Your task to perform on an android device: toggle translation in the chrome app Image 0: 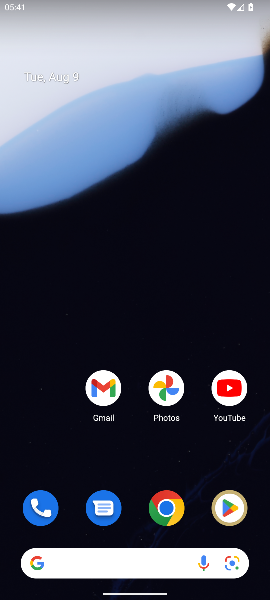
Step 0: click (174, 506)
Your task to perform on an android device: toggle translation in the chrome app Image 1: 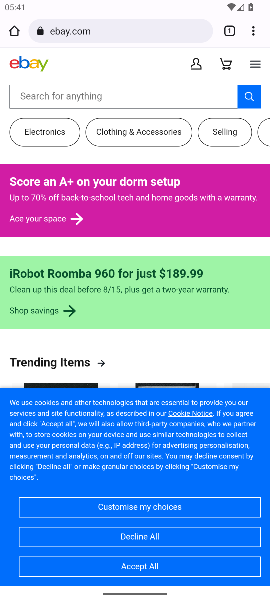
Step 1: click (254, 29)
Your task to perform on an android device: toggle translation in the chrome app Image 2: 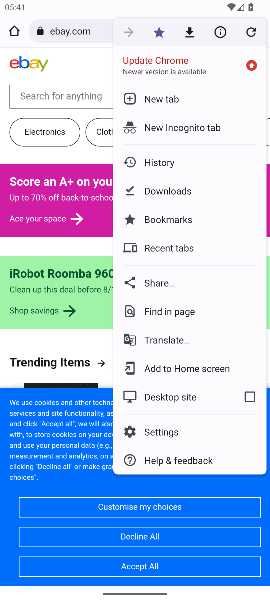
Step 2: click (169, 431)
Your task to perform on an android device: toggle translation in the chrome app Image 3: 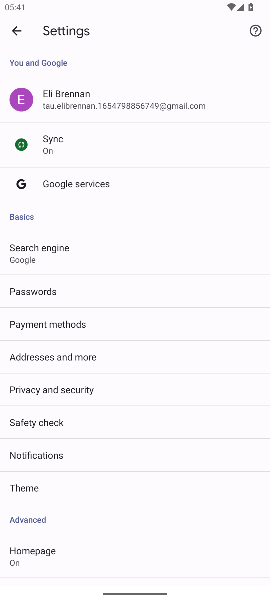
Step 3: drag from (133, 496) to (91, 209)
Your task to perform on an android device: toggle translation in the chrome app Image 4: 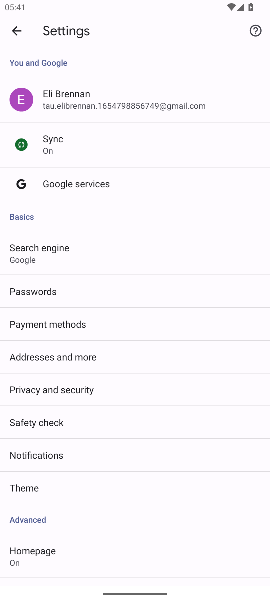
Step 4: drag from (51, 445) to (58, 94)
Your task to perform on an android device: toggle translation in the chrome app Image 5: 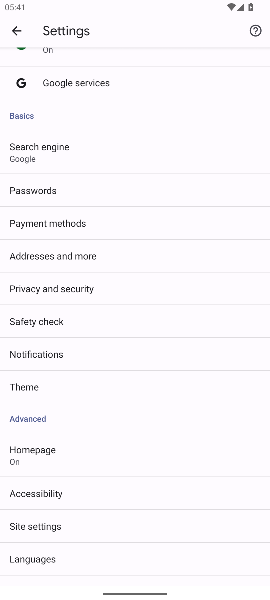
Step 5: click (72, 565)
Your task to perform on an android device: toggle translation in the chrome app Image 6: 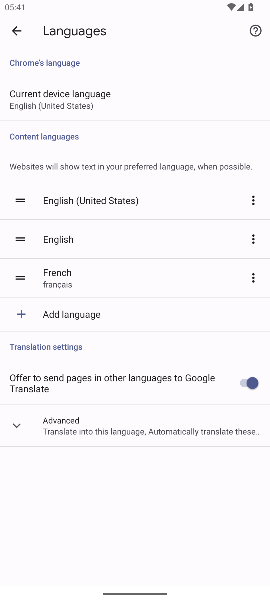
Step 6: click (245, 378)
Your task to perform on an android device: toggle translation in the chrome app Image 7: 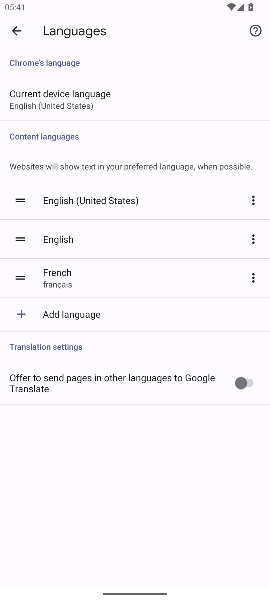
Step 7: task complete